Your task to perform on an android device: turn on the 12-hour format for clock Image 0: 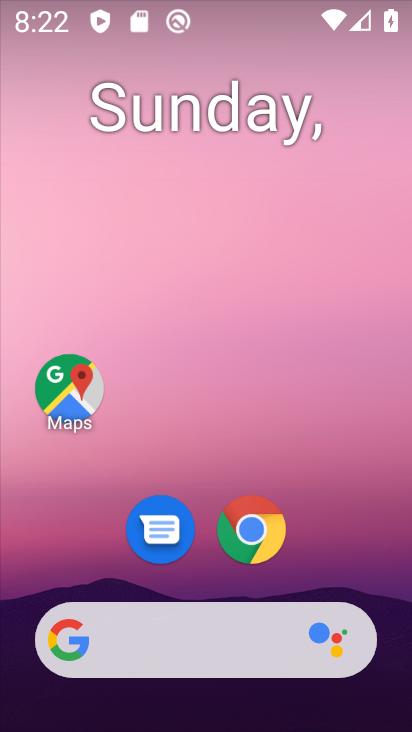
Step 0: drag from (269, 414) to (172, 39)
Your task to perform on an android device: turn on the 12-hour format for clock Image 1: 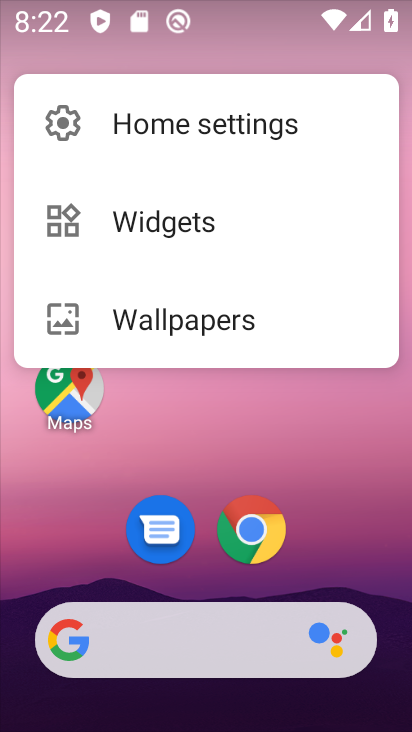
Step 1: drag from (253, 536) to (175, 43)
Your task to perform on an android device: turn on the 12-hour format for clock Image 2: 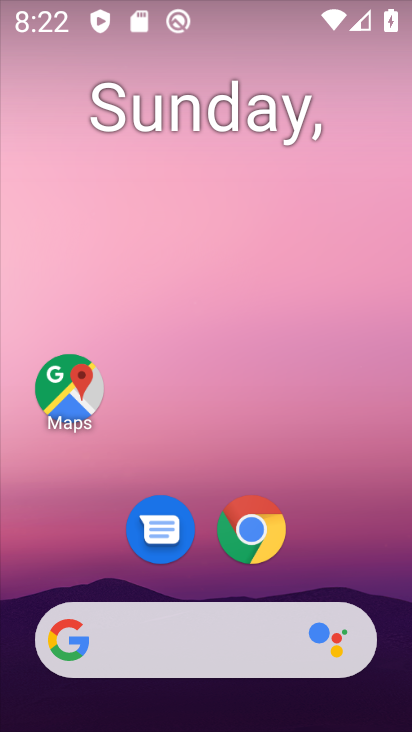
Step 2: drag from (285, 346) to (203, 63)
Your task to perform on an android device: turn on the 12-hour format for clock Image 3: 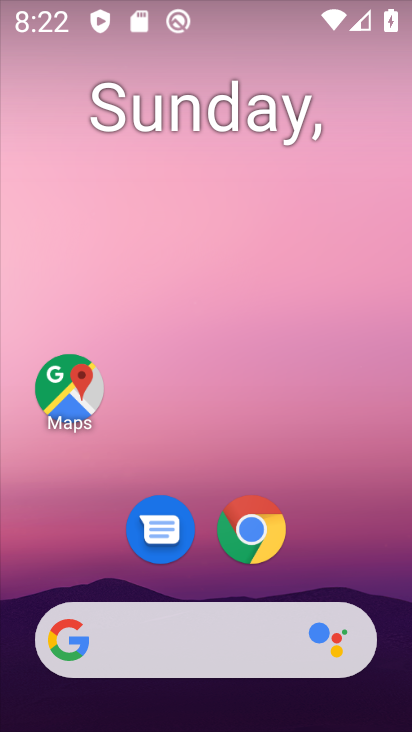
Step 3: drag from (186, 273) to (246, 50)
Your task to perform on an android device: turn on the 12-hour format for clock Image 4: 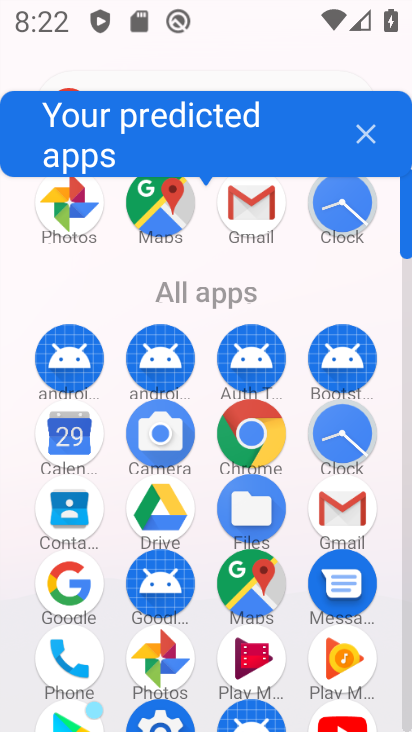
Step 4: drag from (230, 411) to (198, 180)
Your task to perform on an android device: turn on the 12-hour format for clock Image 5: 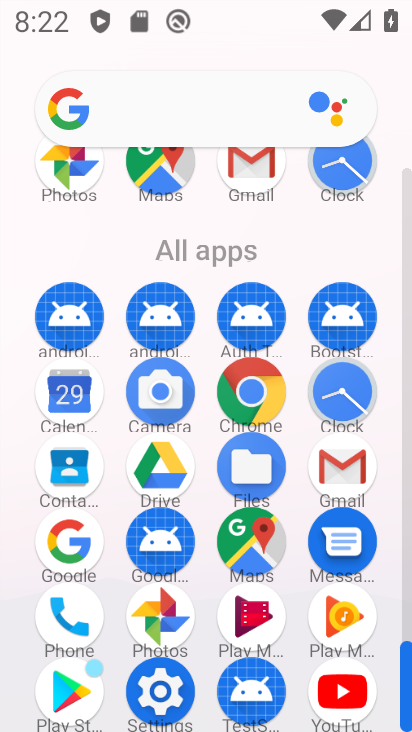
Step 5: click (105, 38)
Your task to perform on an android device: turn on the 12-hour format for clock Image 6: 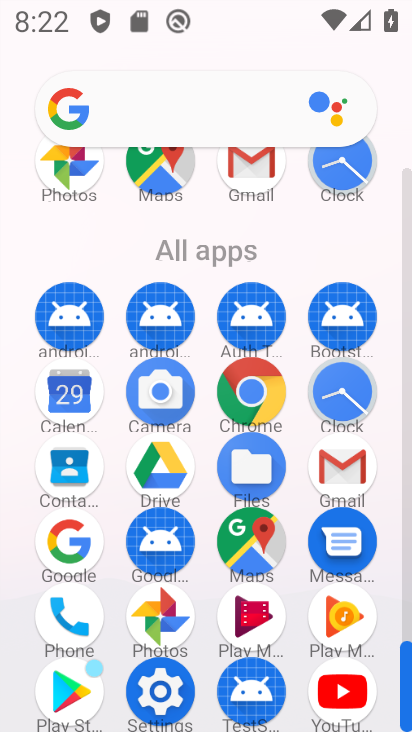
Step 6: click (85, 18)
Your task to perform on an android device: turn on the 12-hour format for clock Image 7: 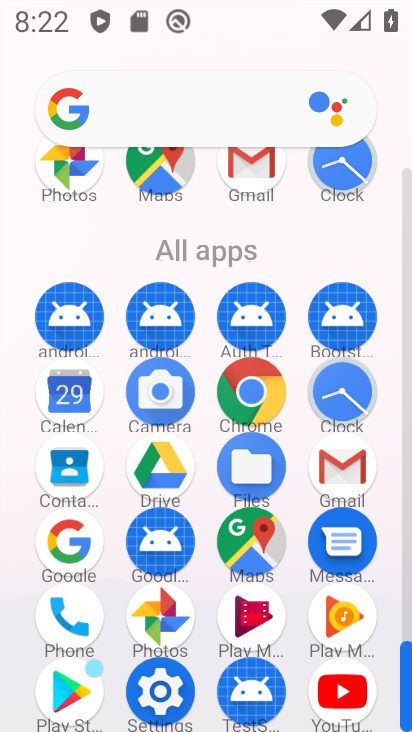
Step 7: click (228, 420)
Your task to perform on an android device: turn on the 12-hour format for clock Image 8: 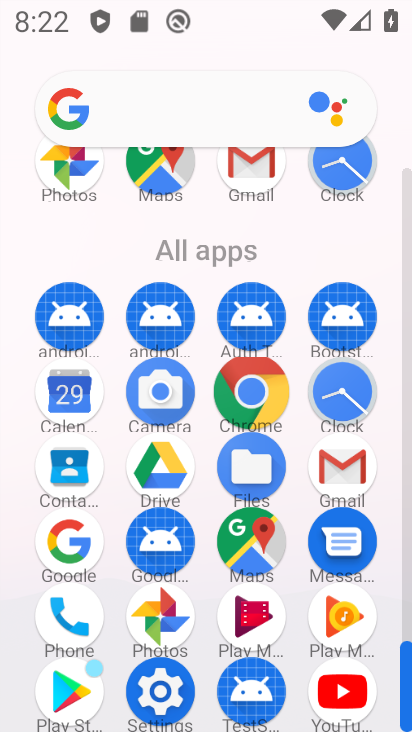
Step 8: drag from (149, 162) to (198, 20)
Your task to perform on an android device: turn on the 12-hour format for clock Image 9: 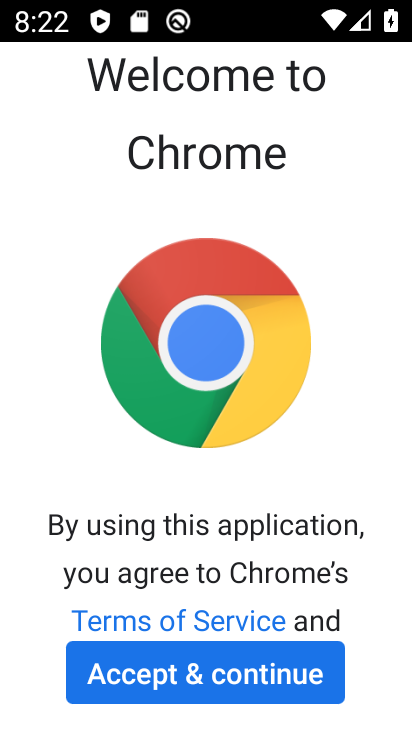
Step 9: click (195, 1)
Your task to perform on an android device: turn on the 12-hour format for clock Image 10: 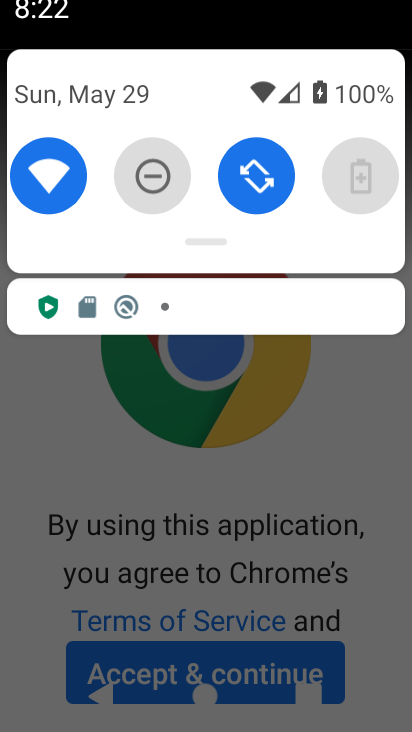
Step 10: click (340, 388)
Your task to perform on an android device: turn on the 12-hour format for clock Image 11: 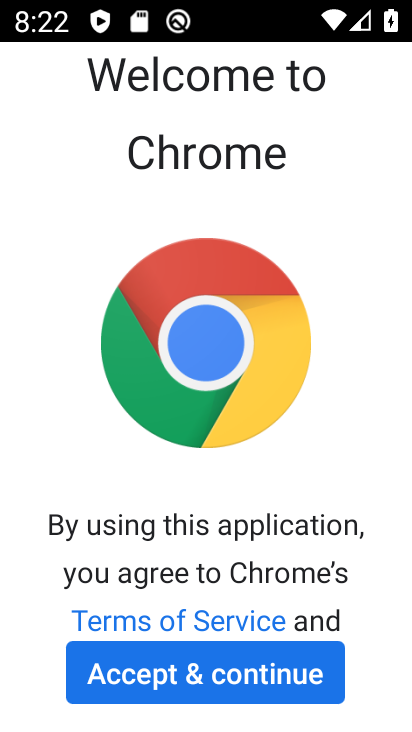
Step 11: click (334, 398)
Your task to perform on an android device: turn on the 12-hour format for clock Image 12: 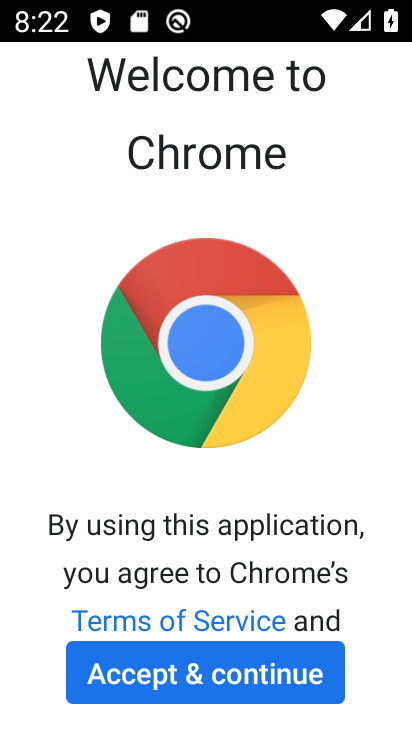
Step 12: click (315, 403)
Your task to perform on an android device: turn on the 12-hour format for clock Image 13: 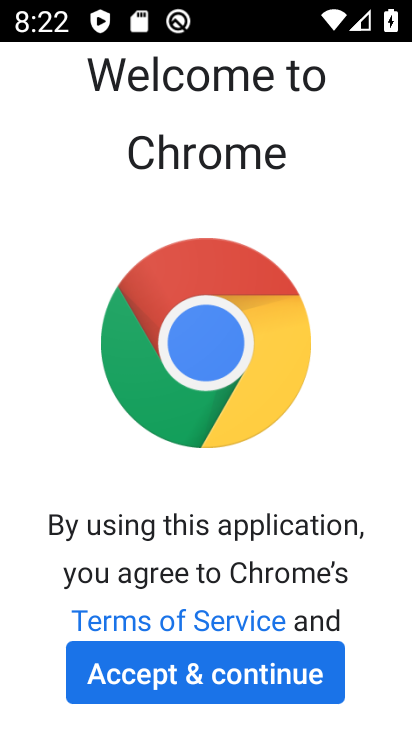
Step 13: click (318, 388)
Your task to perform on an android device: turn on the 12-hour format for clock Image 14: 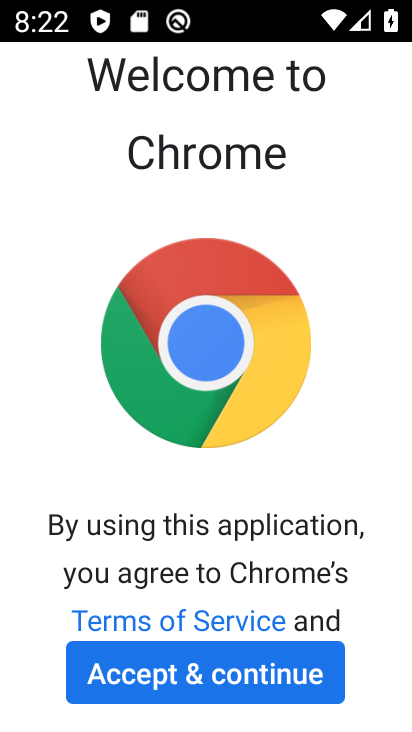
Step 14: click (330, 392)
Your task to perform on an android device: turn on the 12-hour format for clock Image 15: 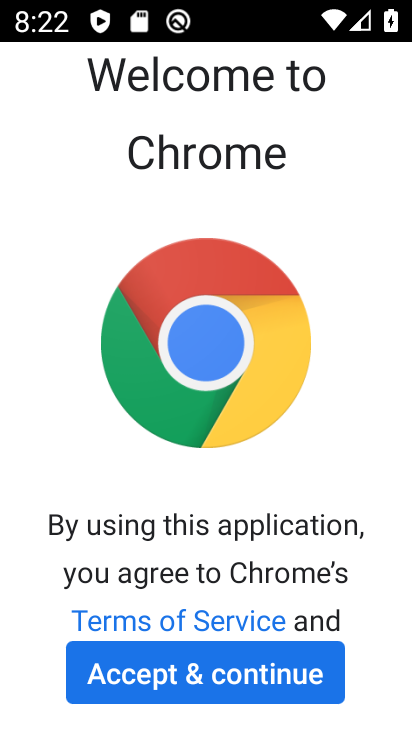
Step 15: task complete